Your task to perform on an android device: uninstall "Facebook Lite" Image 0: 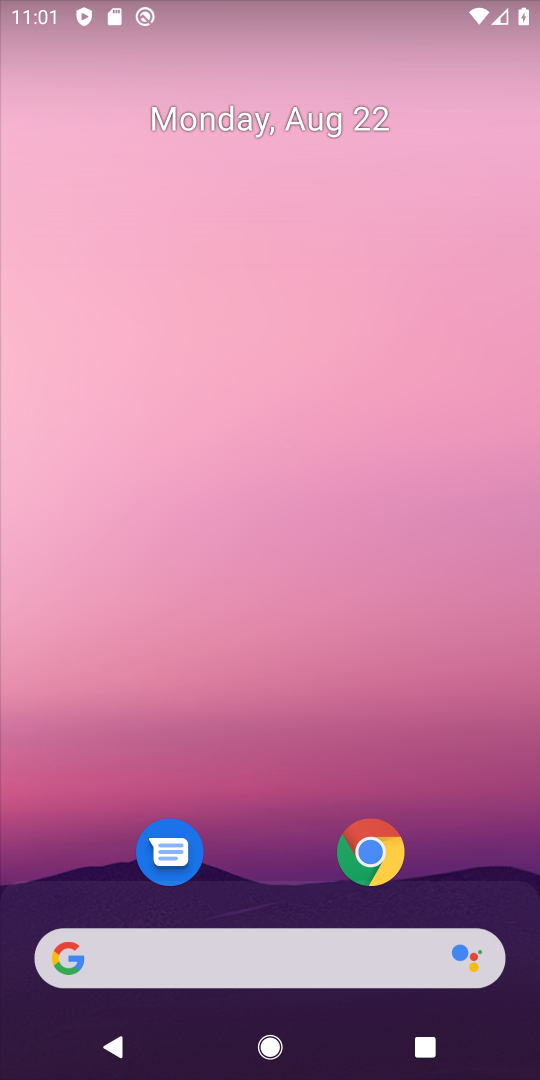
Step 0: drag from (262, 864) to (299, 144)
Your task to perform on an android device: uninstall "Facebook Lite" Image 1: 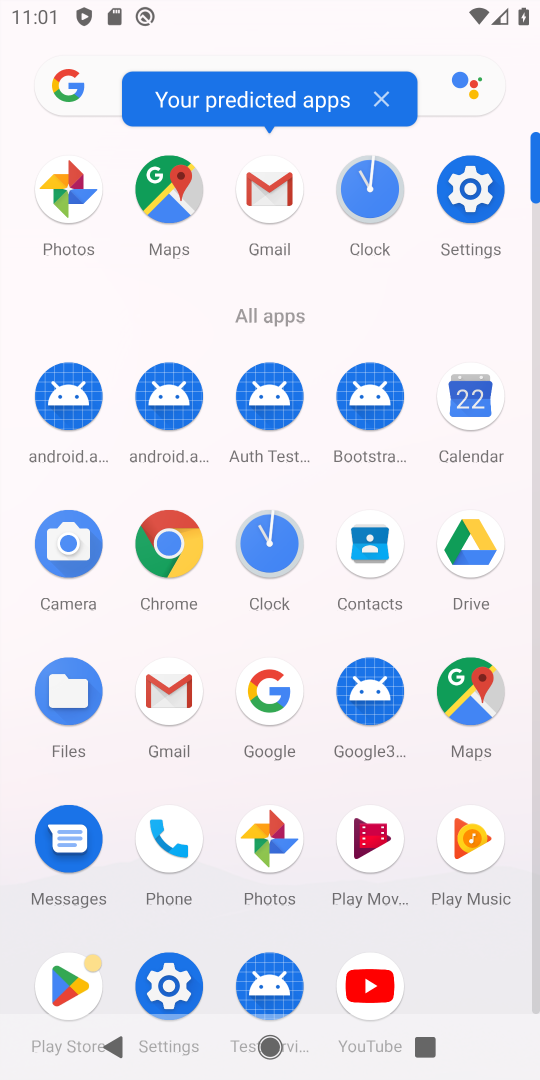
Step 1: click (65, 987)
Your task to perform on an android device: uninstall "Facebook Lite" Image 2: 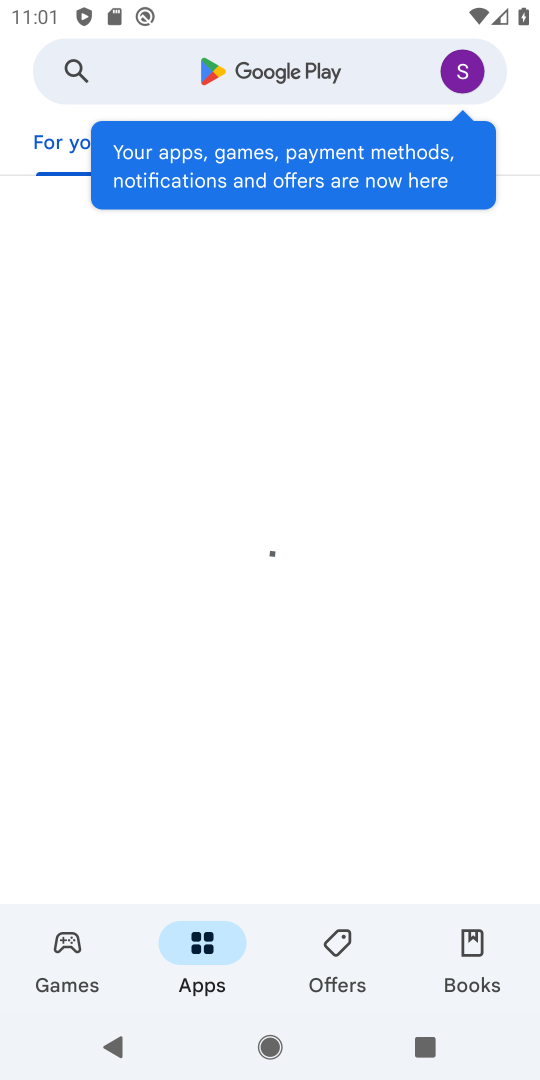
Step 2: click (289, 70)
Your task to perform on an android device: uninstall "Facebook Lite" Image 3: 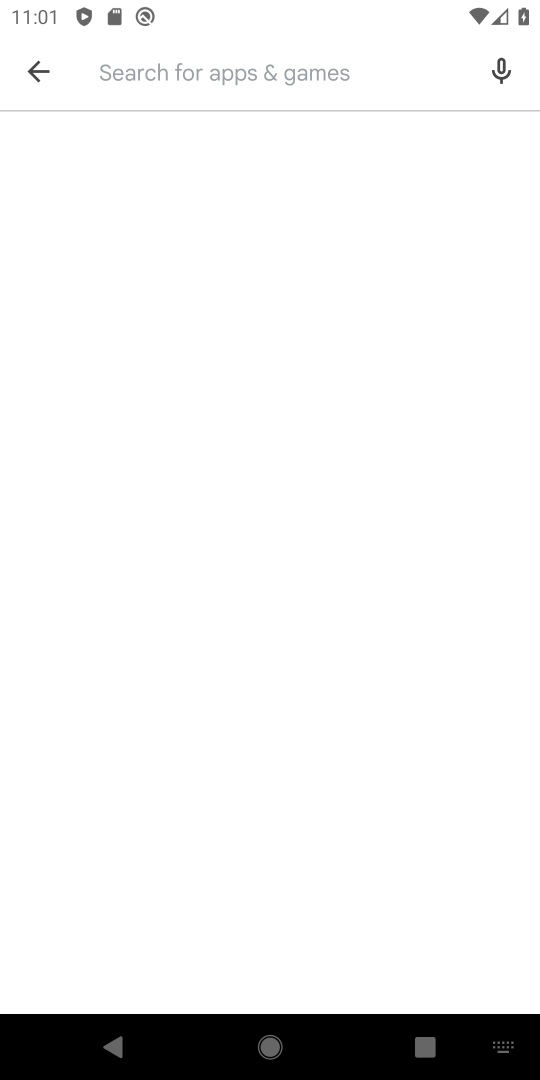
Step 3: type "facebook lite"
Your task to perform on an android device: uninstall "Facebook Lite" Image 4: 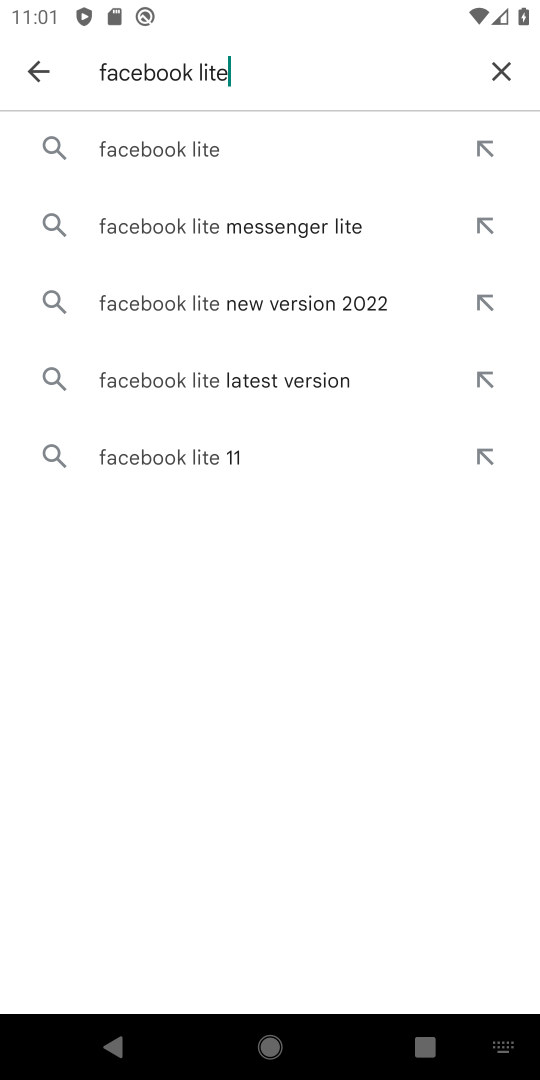
Step 4: click (172, 143)
Your task to perform on an android device: uninstall "Facebook Lite" Image 5: 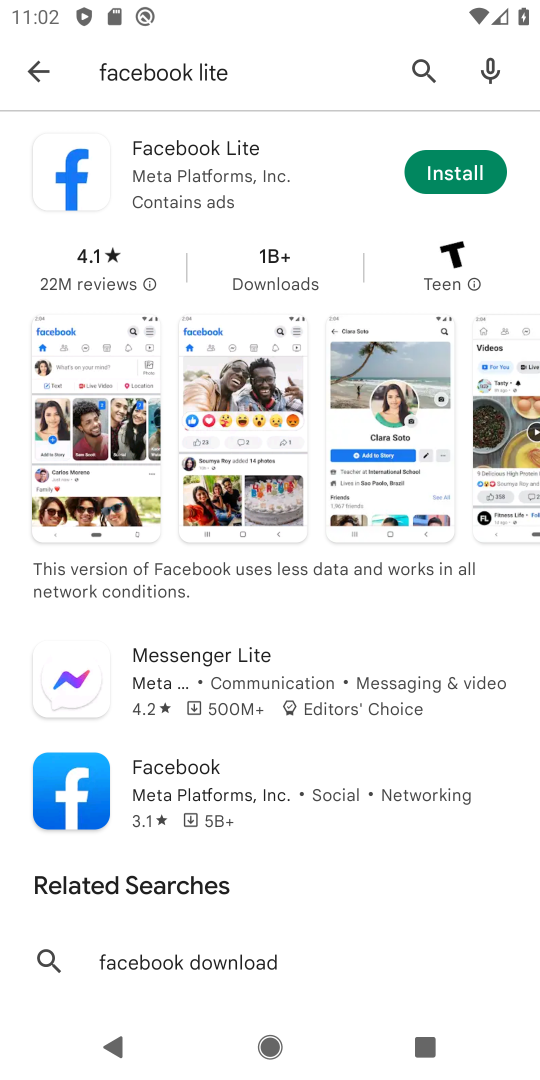
Step 5: task complete